Your task to perform on an android device: toggle notifications settings in the gmail app Image 0: 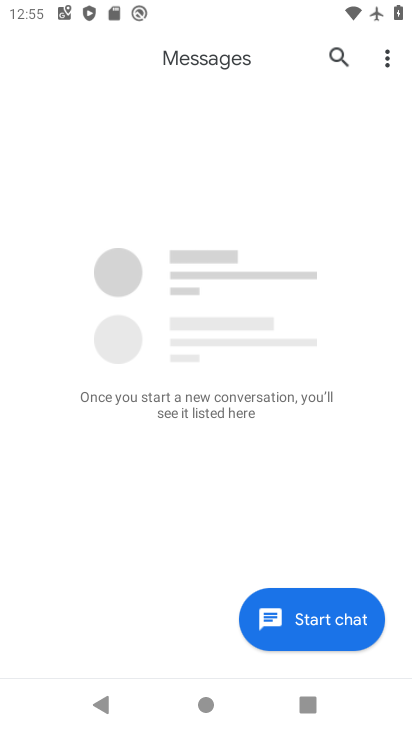
Step 0: press home button
Your task to perform on an android device: toggle notifications settings in the gmail app Image 1: 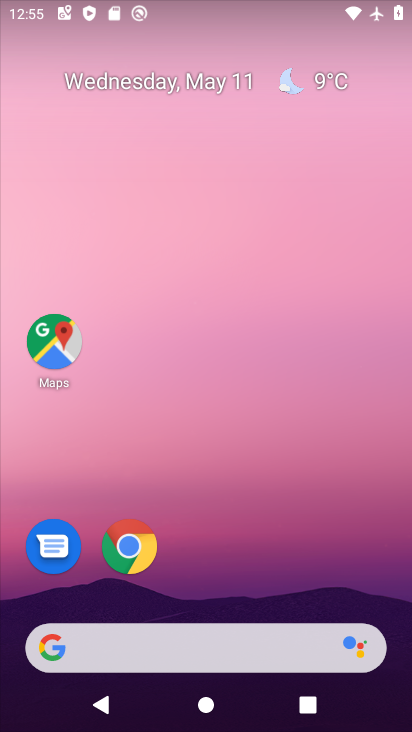
Step 1: drag from (237, 624) to (223, 23)
Your task to perform on an android device: toggle notifications settings in the gmail app Image 2: 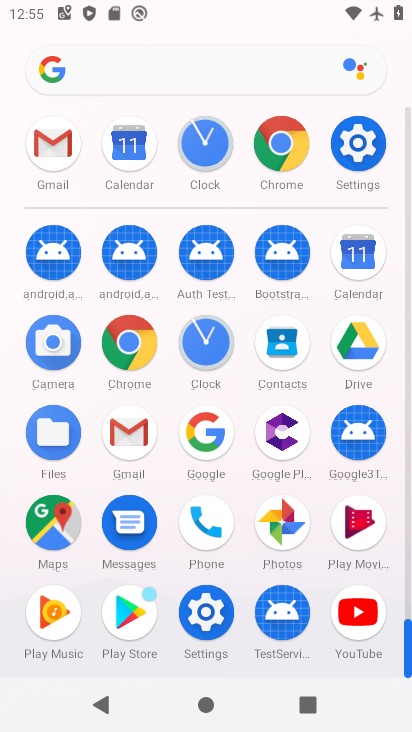
Step 2: click (129, 425)
Your task to perform on an android device: toggle notifications settings in the gmail app Image 3: 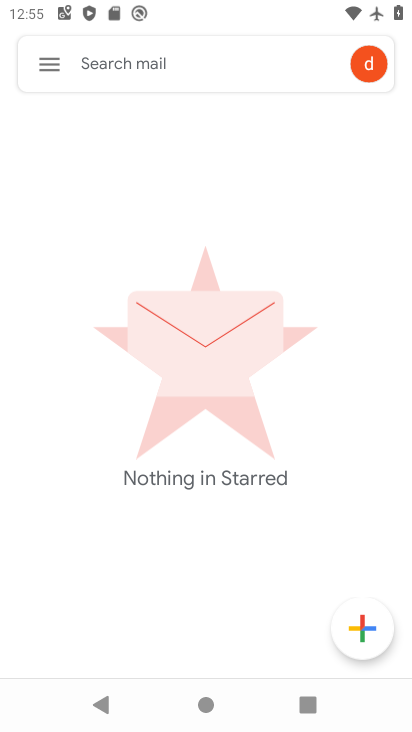
Step 3: click (38, 73)
Your task to perform on an android device: toggle notifications settings in the gmail app Image 4: 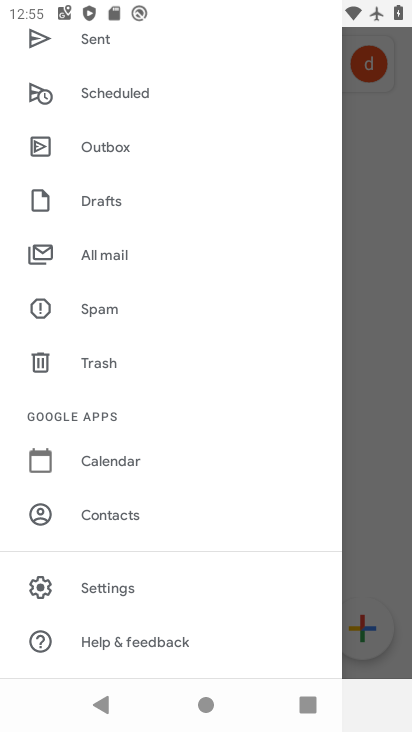
Step 4: click (112, 587)
Your task to perform on an android device: toggle notifications settings in the gmail app Image 5: 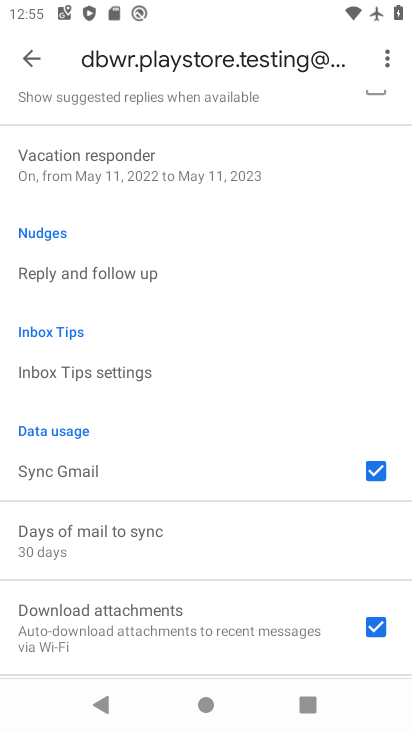
Step 5: drag from (254, 625) to (239, 434)
Your task to perform on an android device: toggle notifications settings in the gmail app Image 6: 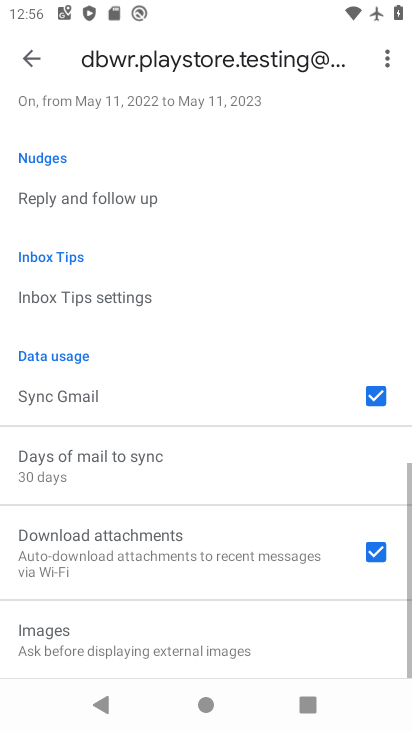
Step 6: drag from (245, 429) to (284, 729)
Your task to perform on an android device: toggle notifications settings in the gmail app Image 7: 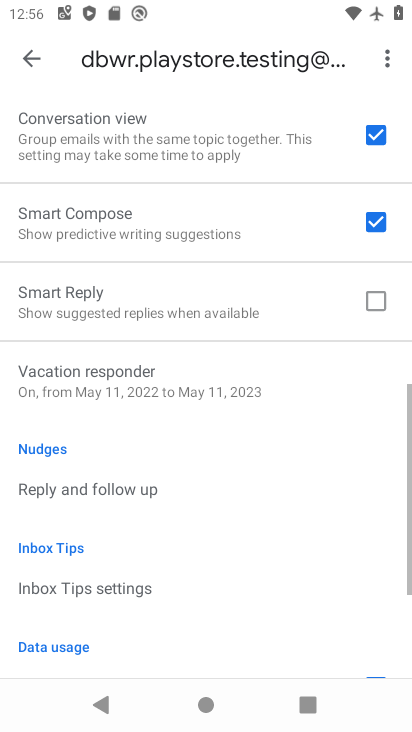
Step 7: drag from (195, 231) to (228, 569)
Your task to perform on an android device: toggle notifications settings in the gmail app Image 8: 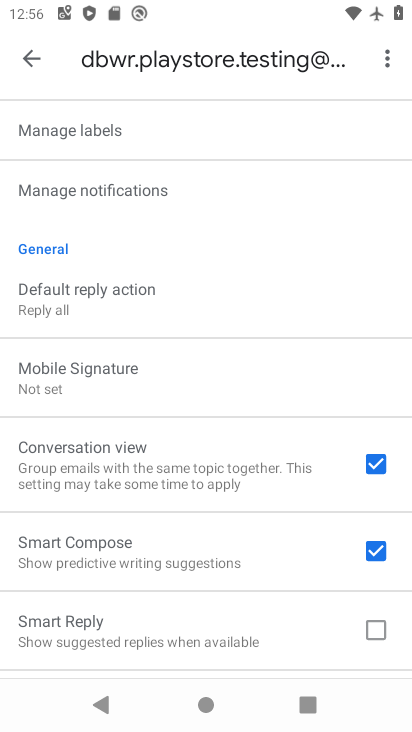
Step 8: click (195, 180)
Your task to perform on an android device: toggle notifications settings in the gmail app Image 9: 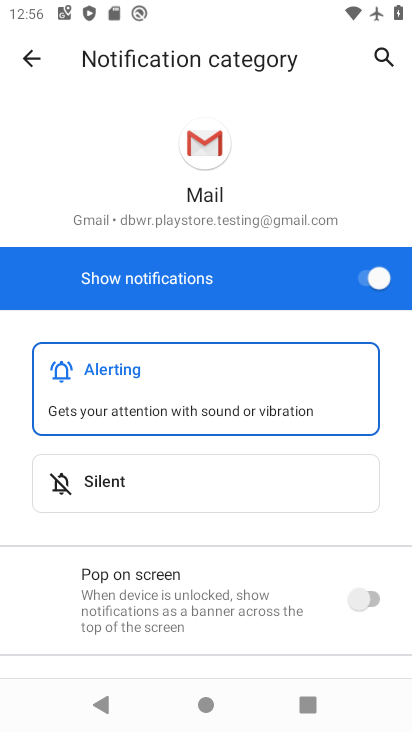
Step 9: click (378, 273)
Your task to perform on an android device: toggle notifications settings in the gmail app Image 10: 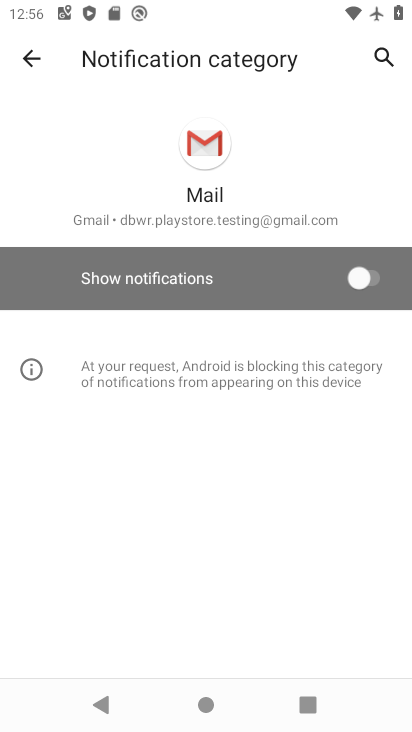
Step 10: task complete